Your task to perform on an android device: Check the news Image 0: 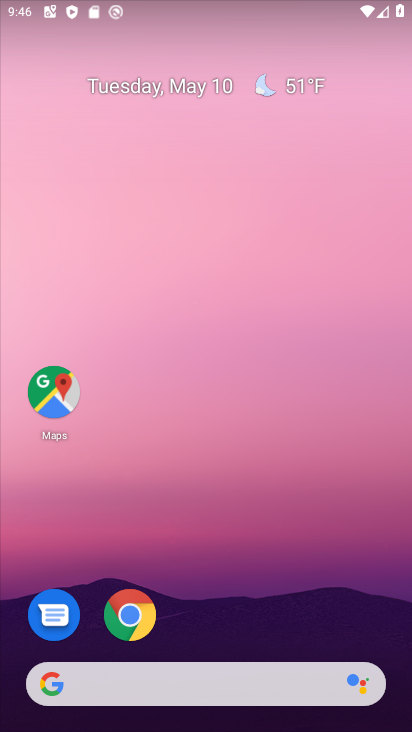
Step 0: drag from (213, 603) to (201, 108)
Your task to perform on an android device: Check the news Image 1: 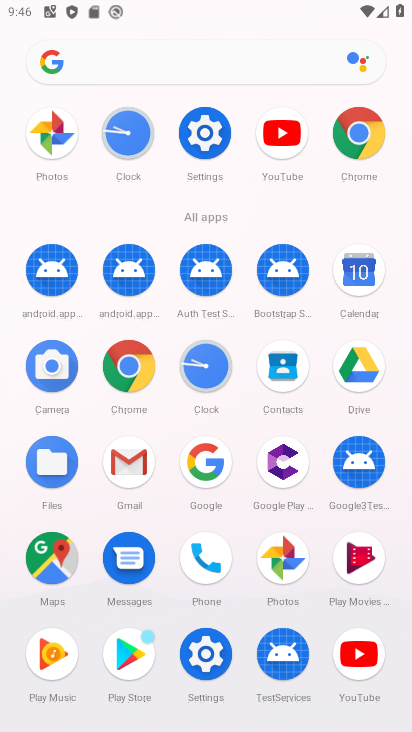
Step 1: click (208, 464)
Your task to perform on an android device: Check the news Image 2: 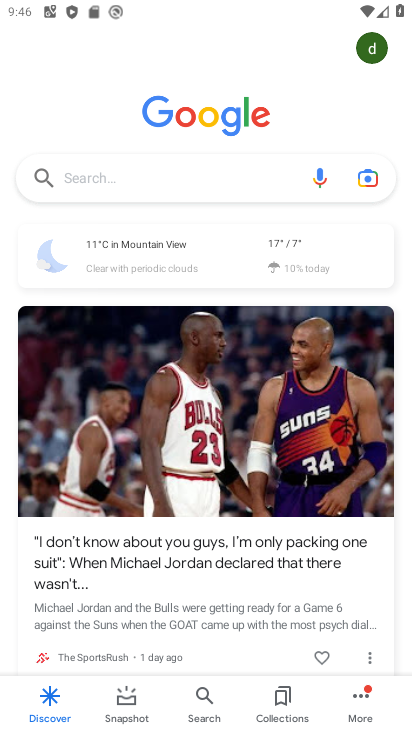
Step 2: task complete